Your task to perform on an android device: Go to Maps Image 0: 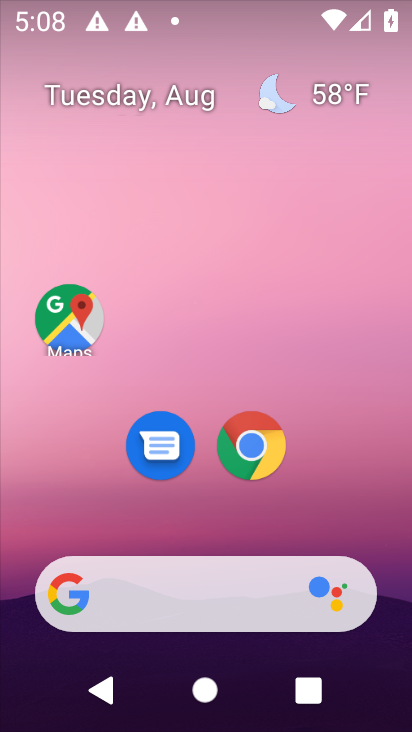
Step 0: click (75, 307)
Your task to perform on an android device: Go to Maps Image 1: 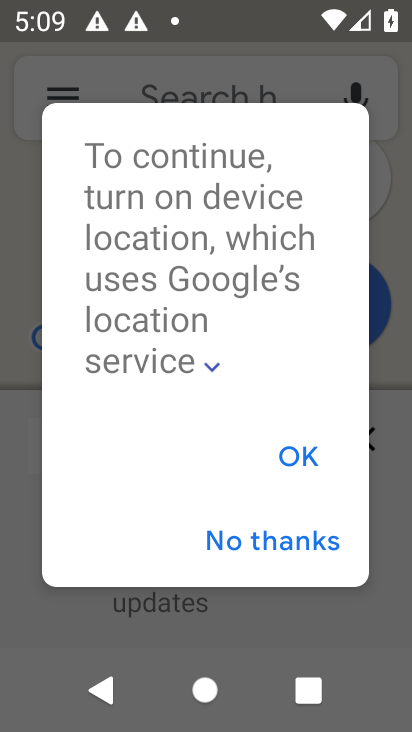
Step 1: task complete